Your task to perform on an android device: open app "Messenger Lite" (install if not already installed), go to login, and select forgot password Image 0: 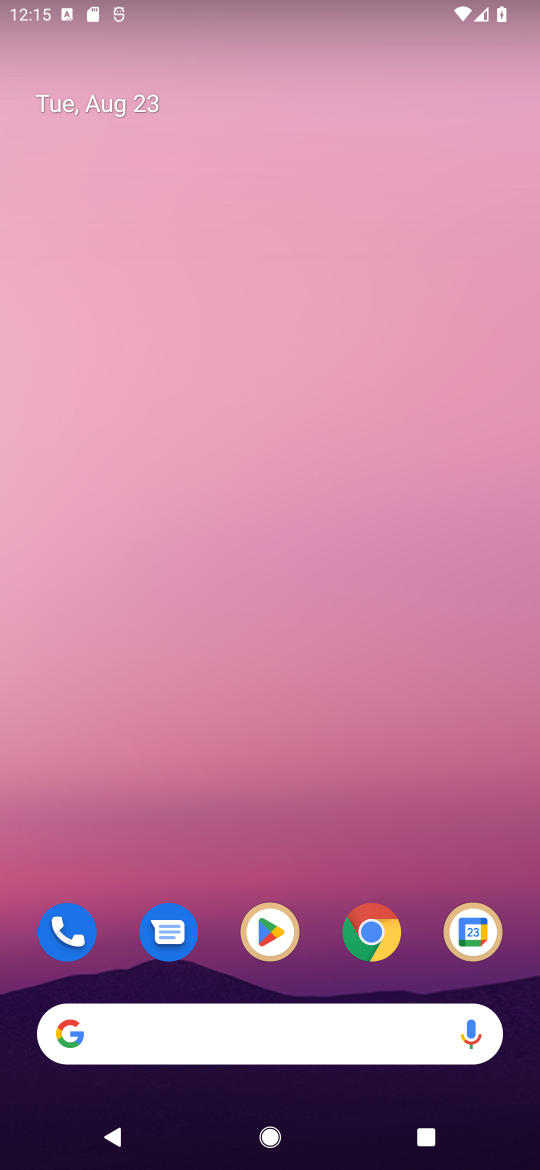
Step 0: click (262, 919)
Your task to perform on an android device: open app "Messenger Lite" (install if not already installed), go to login, and select forgot password Image 1: 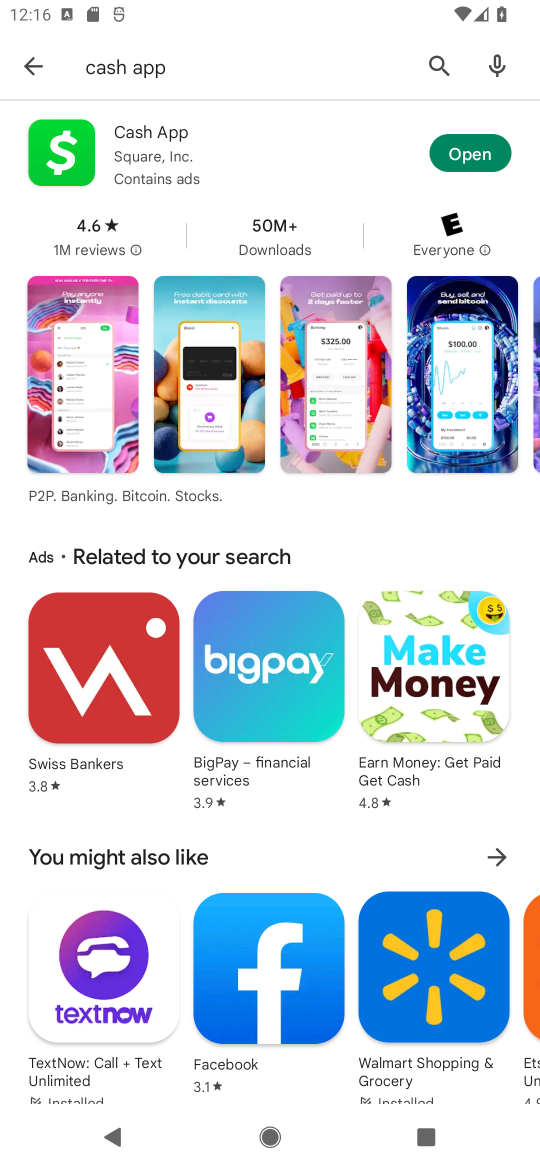
Step 1: click (429, 52)
Your task to perform on an android device: open app "Messenger Lite" (install if not already installed), go to login, and select forgot password Image 2: 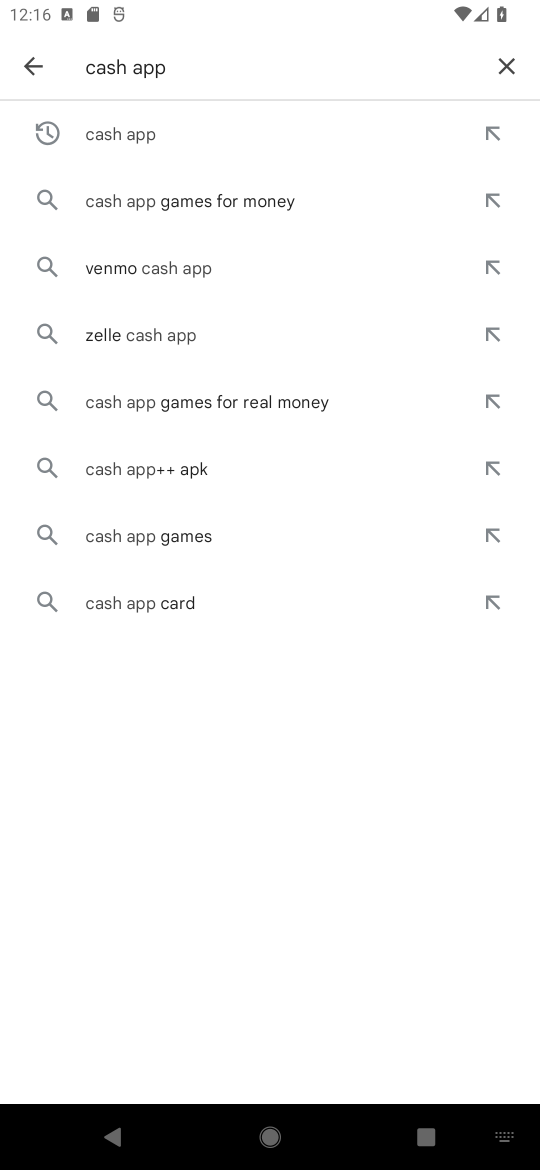
Step 2: click (502, 58)
Your task to perform on an android device: open app "Messenger Lite" (install if not already installed), go to login, and select forgot password Image 3: 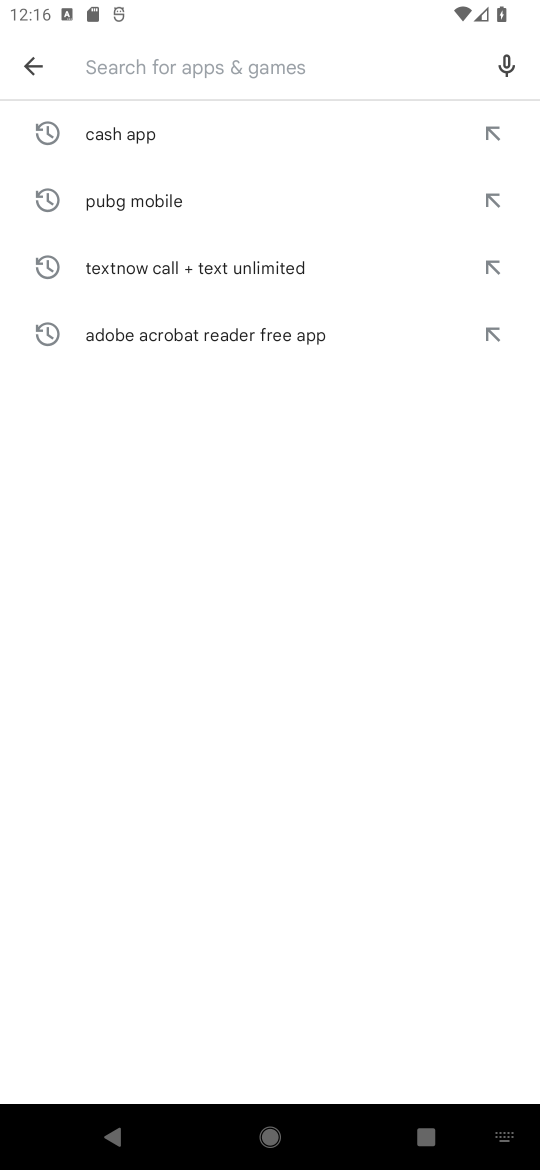
Step 3: click (198, 72)
Your task to perform on an android device: open app "Messenger Lite" (install if not already installed), go to login, and select forgot password Image 4: 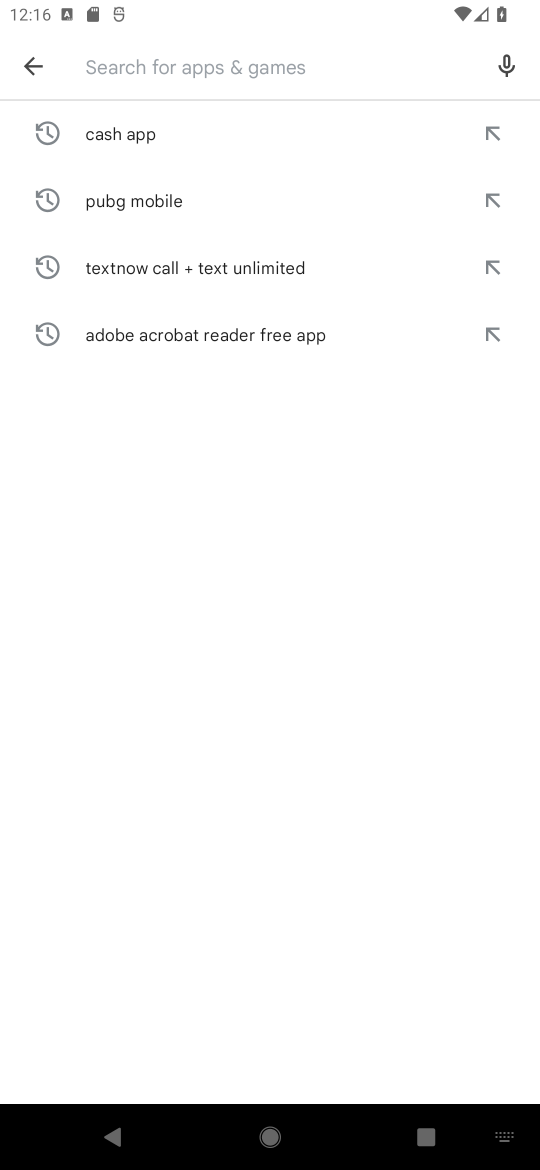
Step 4: type "Messenger Lite"
Your task to perform on an android device: open app "Messenger Lite" (install if not already installed), go to login, and select forgot password Image 5: 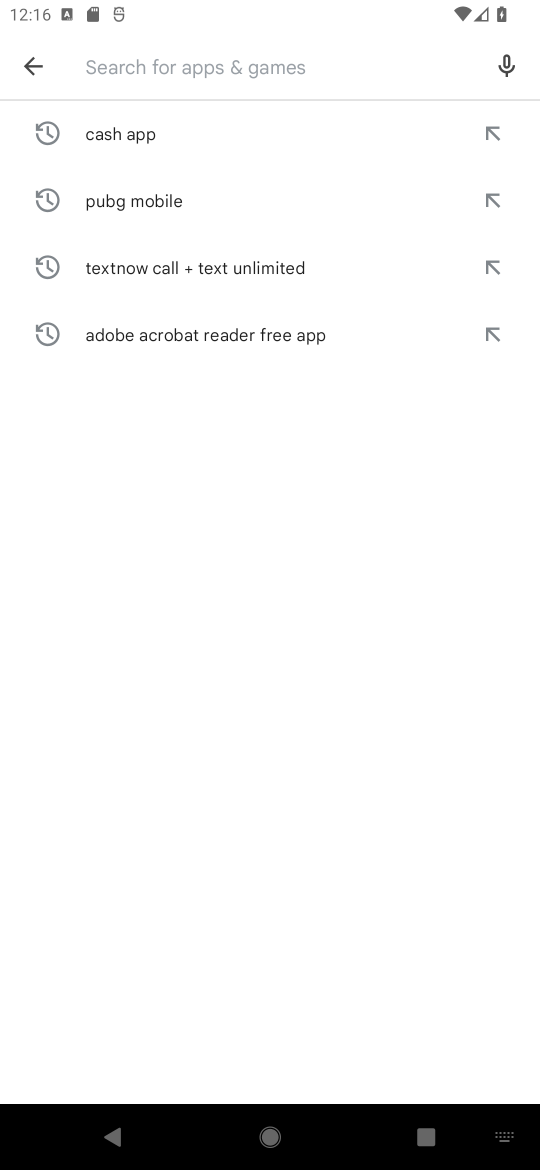
Step 5: click (360, 785)
Your task to perform on an android device: open app "Messenger Lite" (install if not already installed), go to login, and select forgot password Image 6: 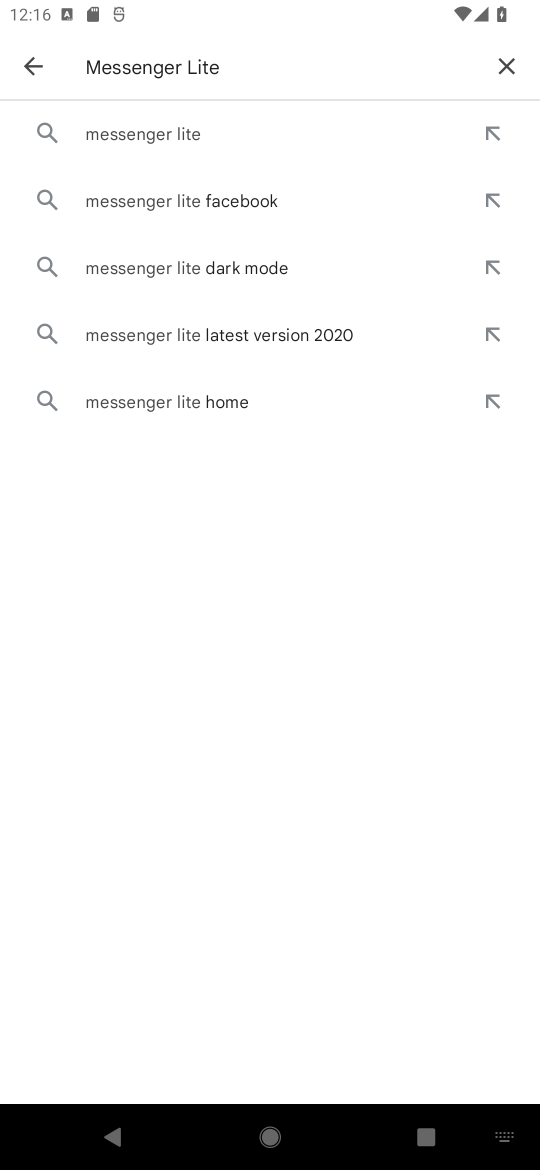
Step 6: click (171, 124)
Your task to perform on an android device: open app "Messenger Lite" (install if not already installed), go to login, and select forgot password Image 7: 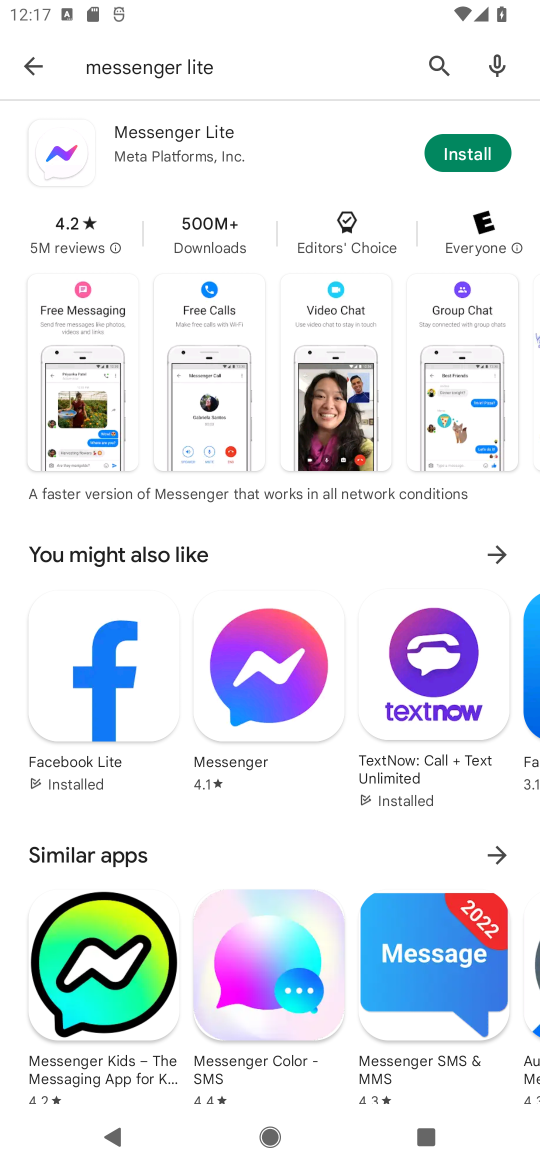
Step 7: click (479, 154)
Your task to perform on an android device: open app "Messenger Lite" (install if not already installed), go to login, and select forgot password Image 8: 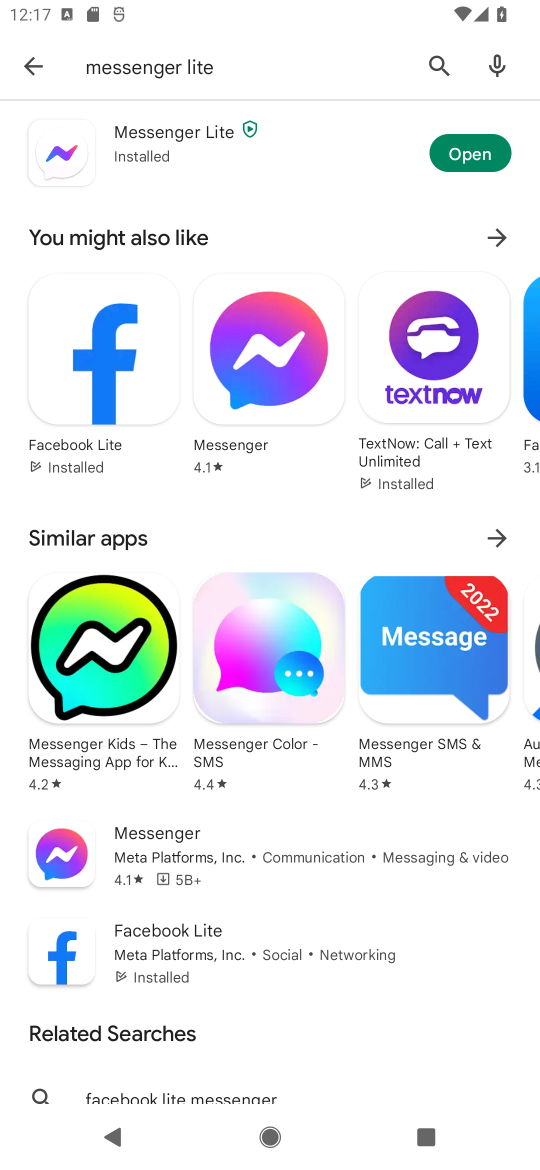
Step 8: click (469, 151)
Your task to perform on an android device: open app "Messenger Lite" (install if not already installed), go to login, and select forgot password Image 9: 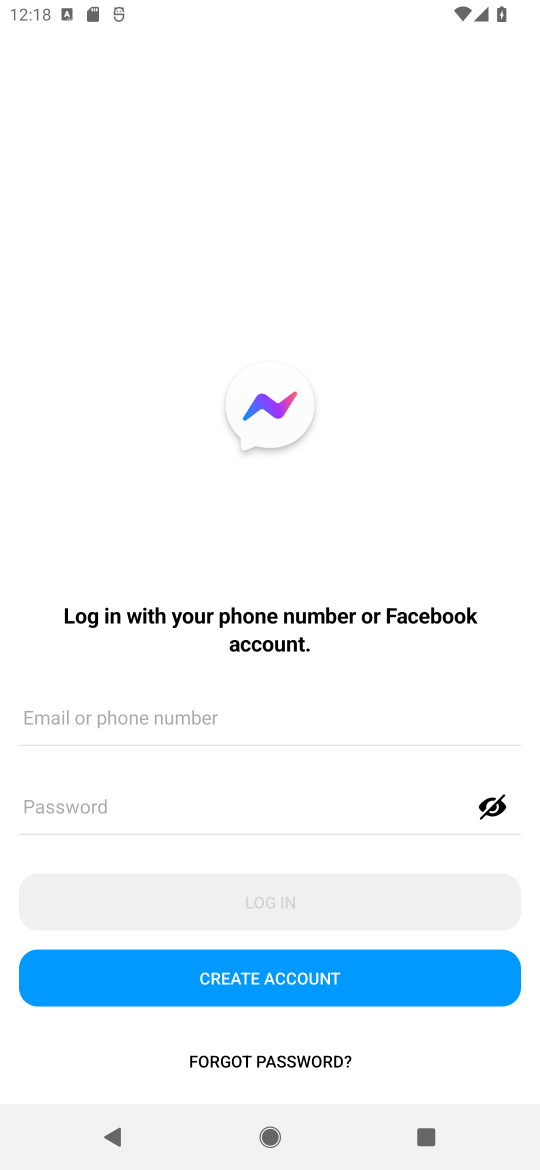
Step 9: click (223, 1059)
Your task to perform on an android device: open app "Messenger Lite" (install if not already installed), go to login, and select forgot password Image 10: 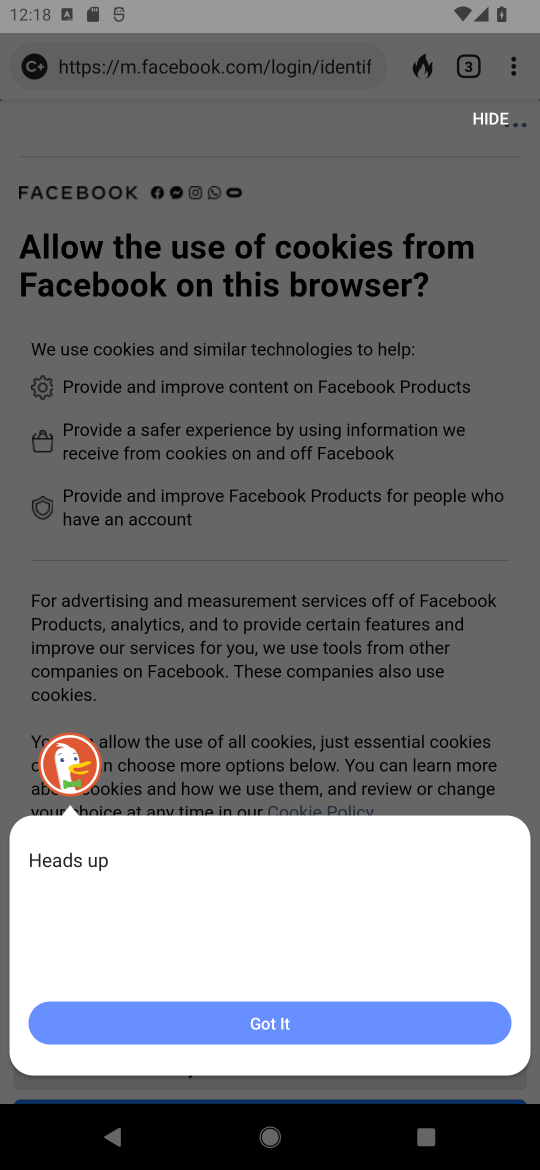
Step 10: task complete